Your task to perform on an android device: change the clock style Image 0: 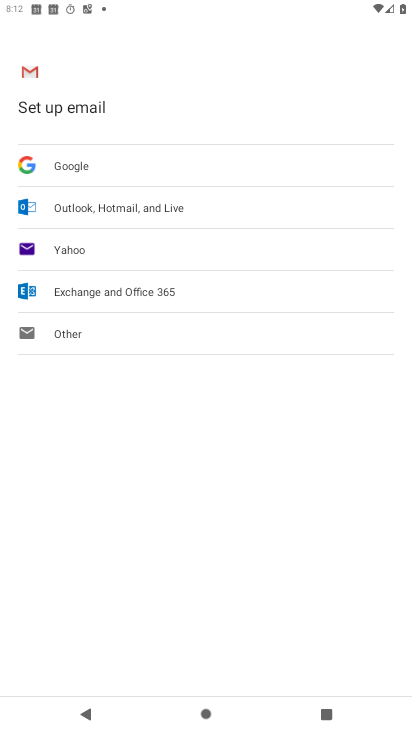
Step 0: press home button
Your task to perform on an android device: change the clock style Image 1: 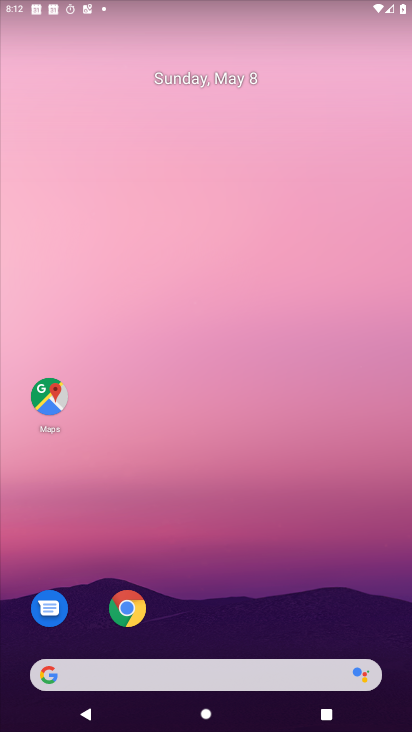
Step 1: drag from (226, 554) to (257, 147)
Your task to perform on an android device: change the clock style Image 2: 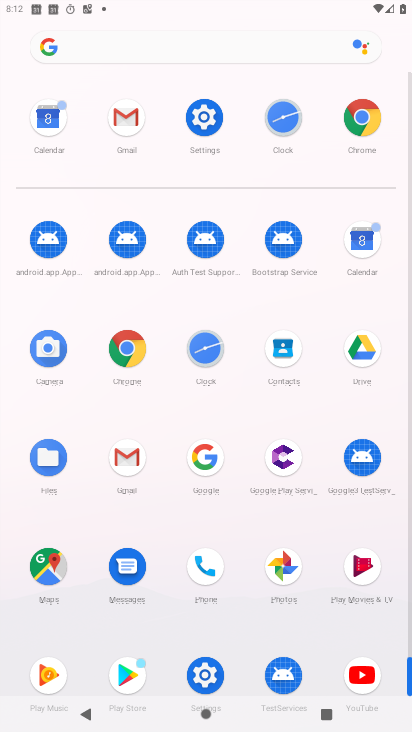
Step 2: click (202, 341)
Your task to perform on an android device: change the clock style Image 3: 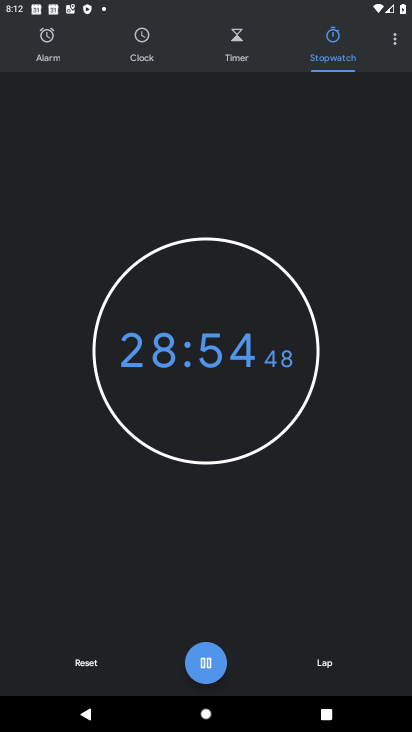
Step 3: click (397, 46)
Your task to perform on an android device: change the clock style Image 4: 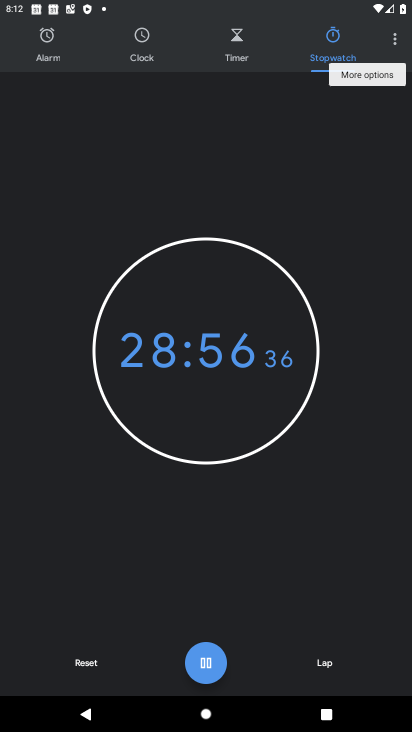
Step 4: click (397, 46)
Your task to perform on an android device: change the clock style Image 5: 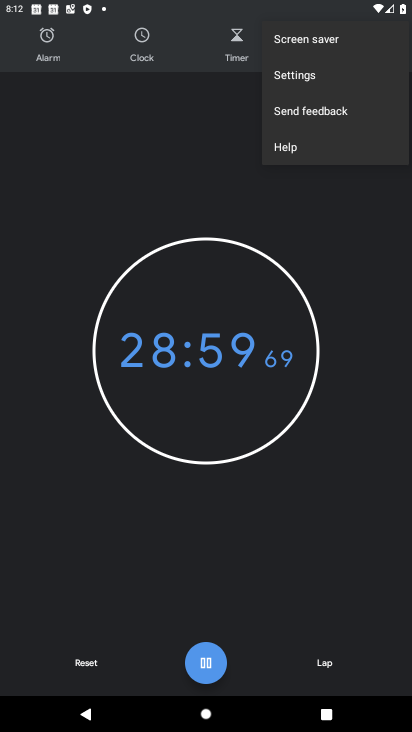
Step 5: click (304, 80)
Your task to perform on an android device: change the clock style Image 6: 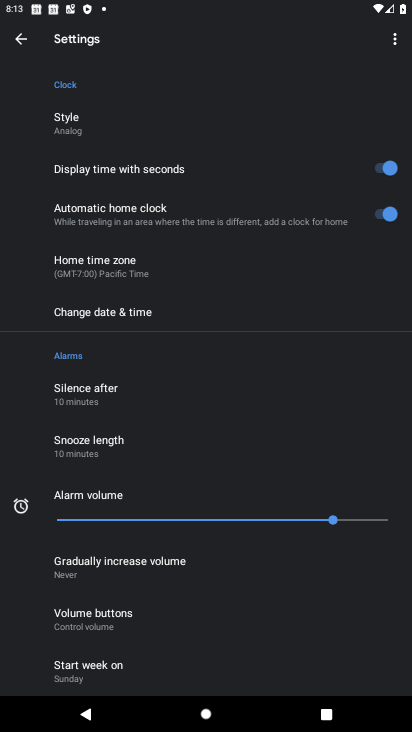
Step 6: click (97, 127)
Your task to perform on an android device: change the clock style Image 7: 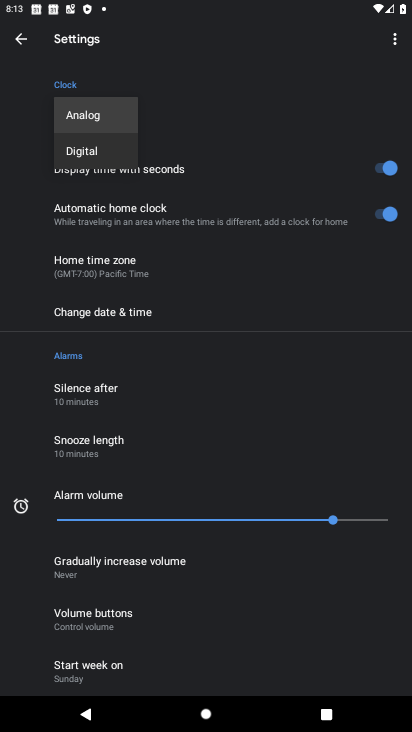
Step 7: click (99, 153)
Your task to perform on an android device: change the clock style Image 8: 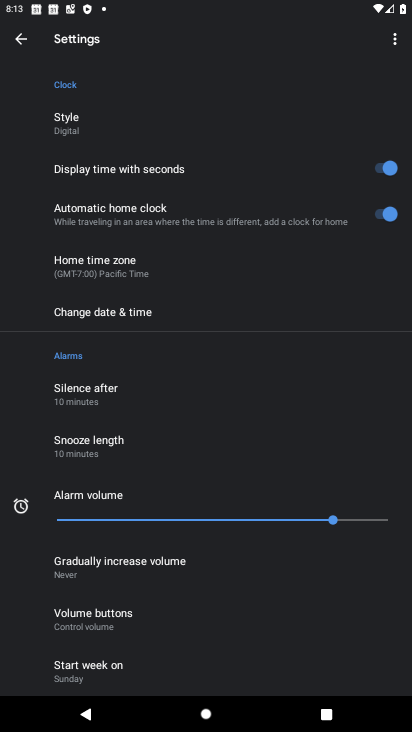
Step 8: task complete